Your task to perform on an android device: Do I have any events today? Image 0: 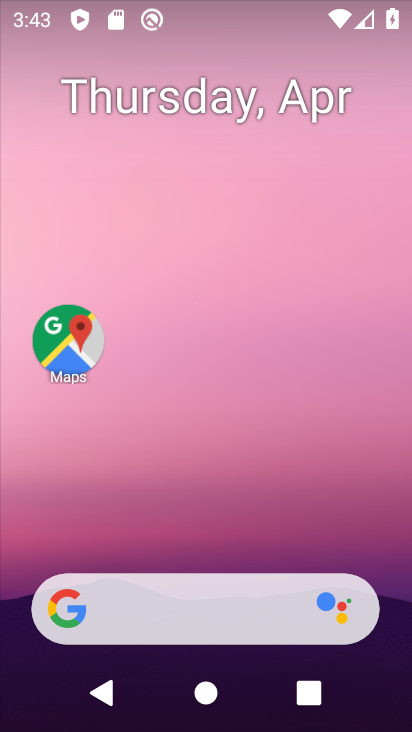
Step 0: drag from (207, 727) to (210, 227)
Your task to perform on an android device: Do I have any events today? Image 1: 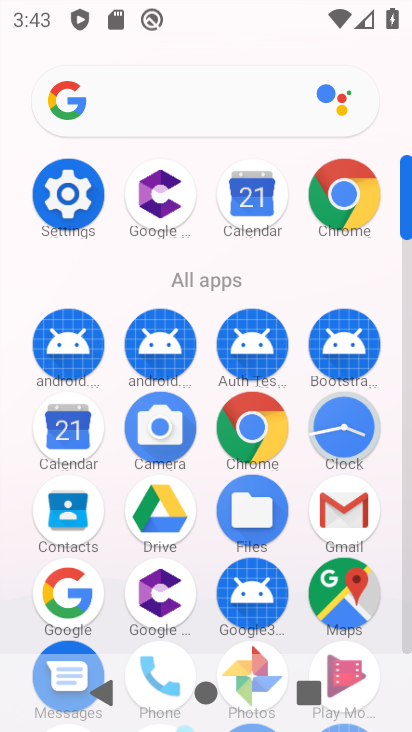
Step 1: click (64, 429)
Your task to perform on an android device: Do I have any events today? Image 2: 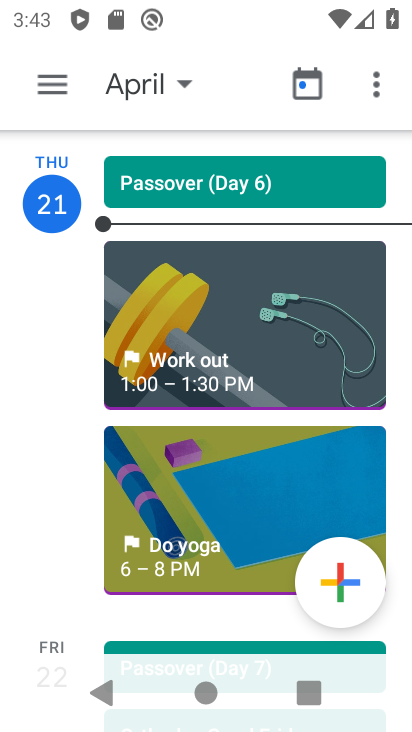
Step 2: click (57, 77)
Your task to perform on an android device: Do I have any events today? Image 3: 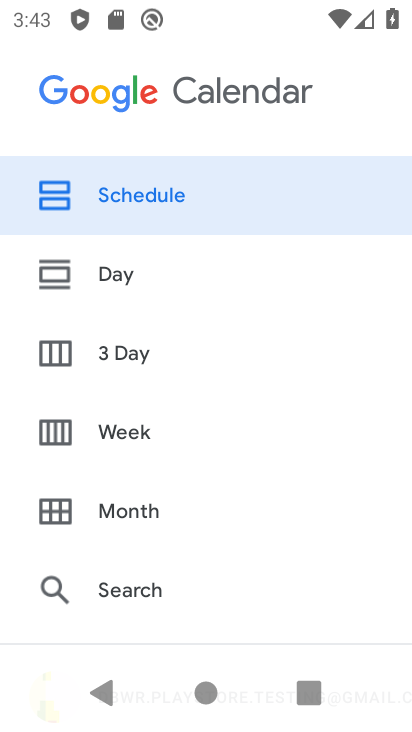
Step 3: drag from (165, 617) to (181, 208)
Your task to perform on an android device: Do I have any events today? Image 4: 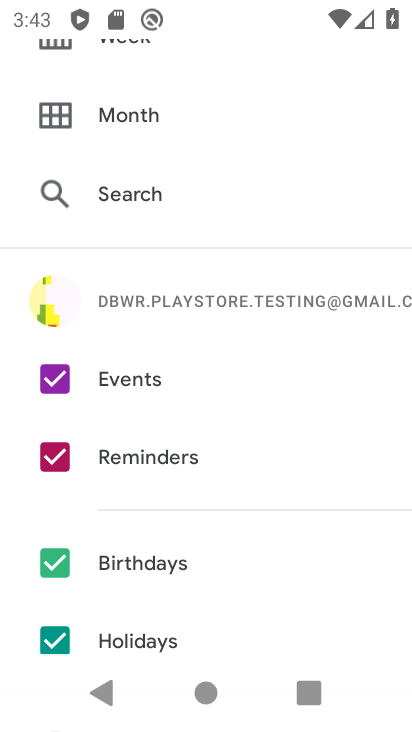
Step 4: drag from (248, 608) to (256, 420)
Your task to perform on an android device: Do I have any events today? Image 5: 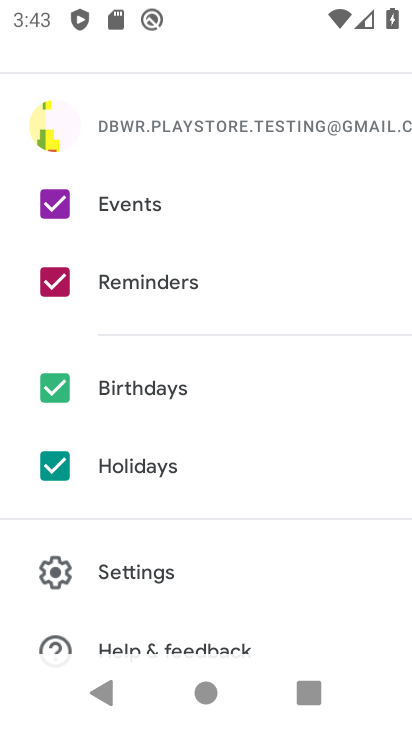
Step 5: click (53, 465)
Your task to perform on an android device: Do I have any events today? Image 6: 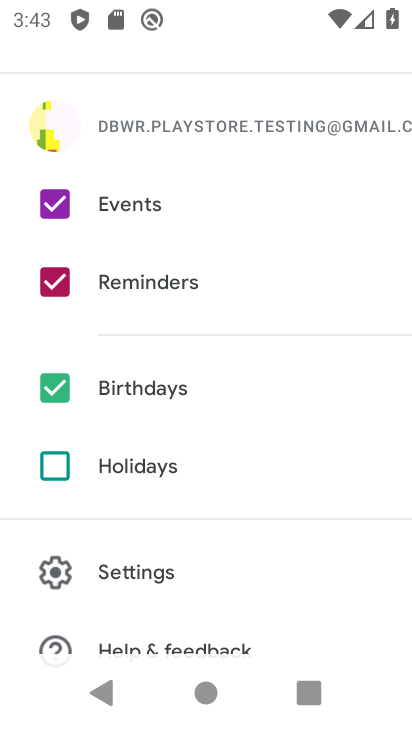
Step 6: click (49, 386)
Your task to perform on an android device: Do I have any events today? Image 7: 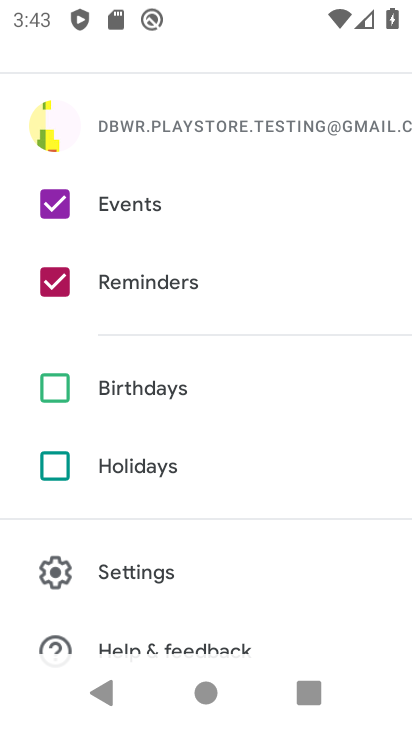
Step 7: click (55, 280)
Your task to perform on an android device: Do I have any events today? Image 8: 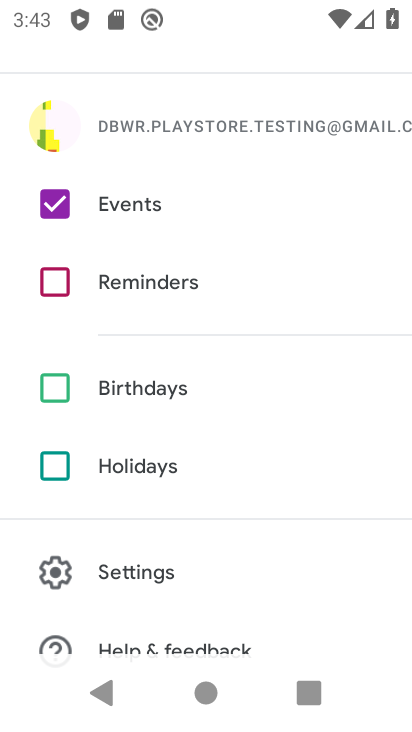
Step 8: drag from (272, 219) to (292, 507)
Your task to perform on an android device: Do I have any events today? Image 9: 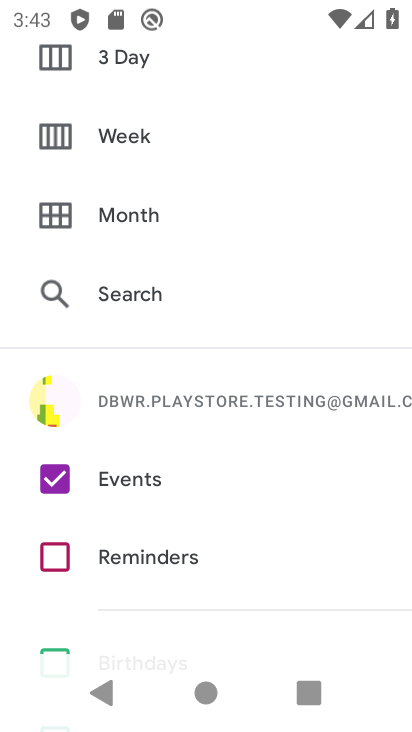
Step 9: drag from (264, 171) to (261, 446)
Your task to perform on an android device: Do I have any events today? Image 10: 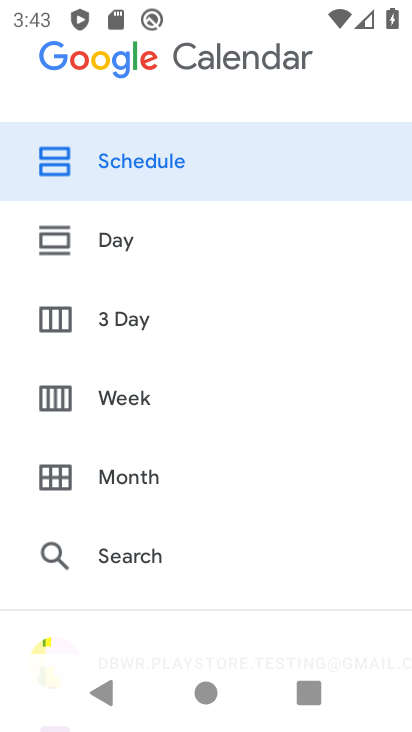
Step 10: click (301, 175)
Your task to perform on an android device: Do I have any events today? Image 11: 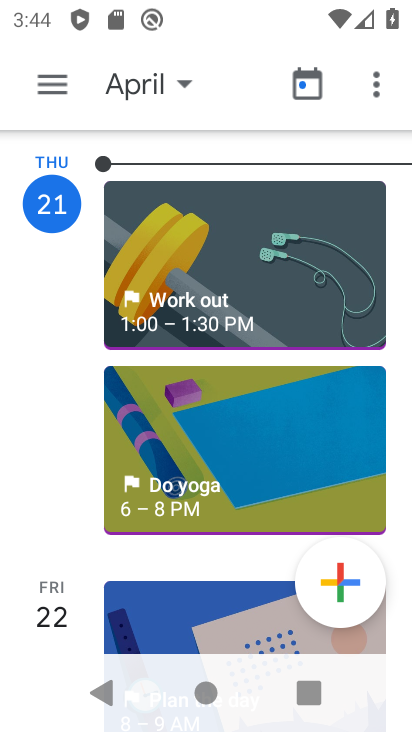
Step 11: task complete